Your task to perform on an android device: add a contact in the contacts app Image 0: 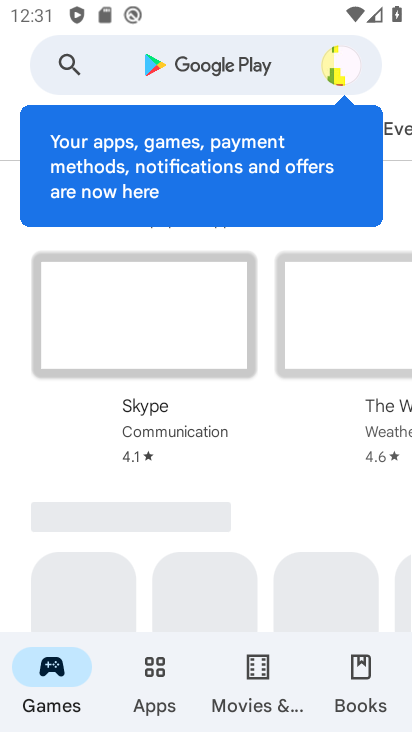
Step 0: press home button
Your task to perform on an android device: add a contact in the contacts app Image 1: 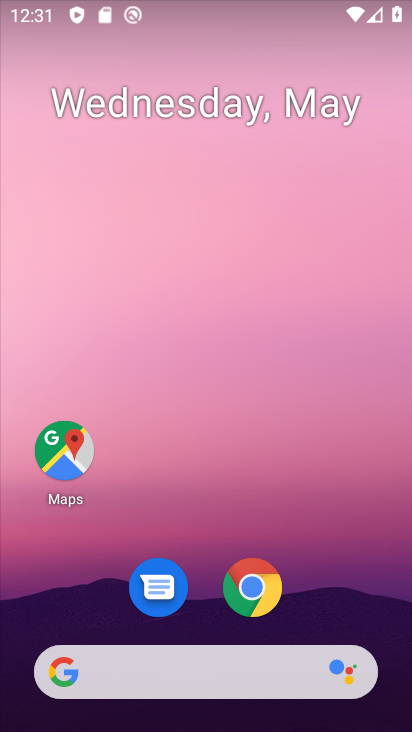
Step 1: drag from (224, 713) to (211, 12)
Your task to perform on an android device: add a contact in the contacts app Image 2: 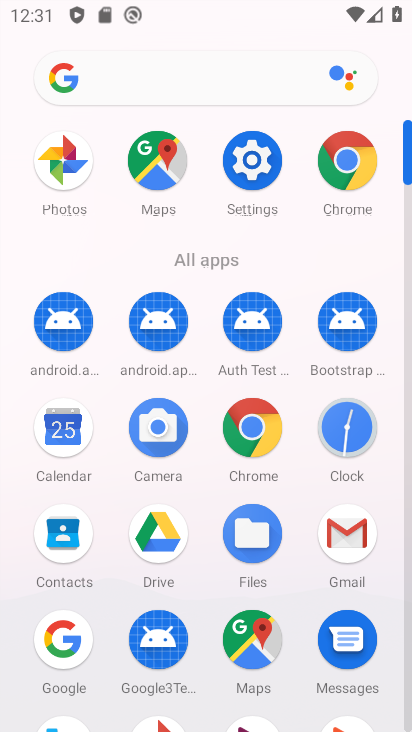
Step 2: click (65, 542)
Your task to perform on an android device: add a contact in the contacts app Image 3: 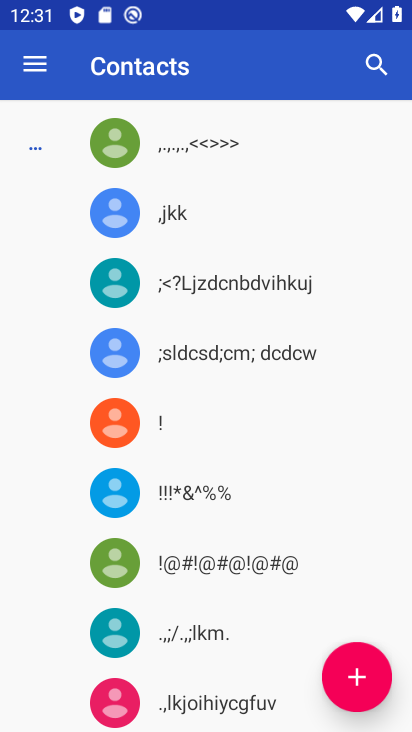
Step 3: click (357, 678)
Your task to perform on an android device: add a contact in the contacts app Image 4: 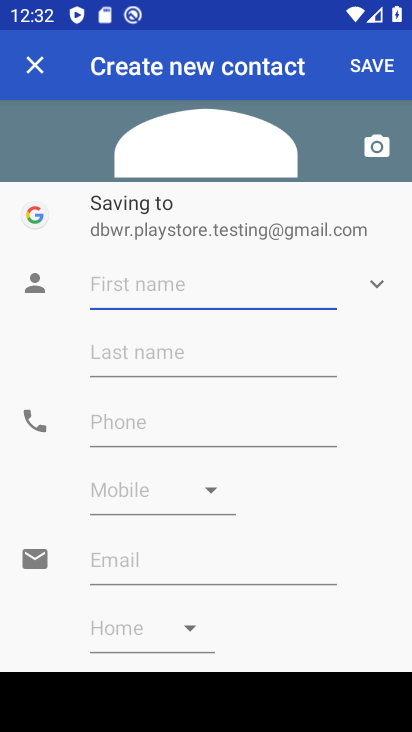
Step 4: type "sulaiman"
Your task to perform on an android device: add a contact in the contacts app Image 5: 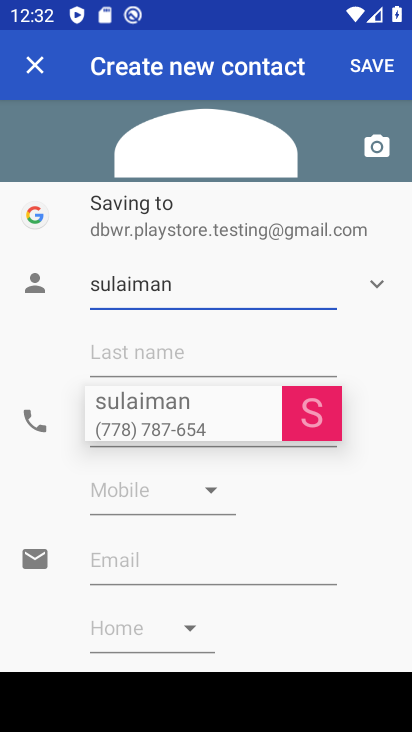
Step 5: click (128, 421)
Your task to perform on an android device: add a contact in the contacts app Image 6: 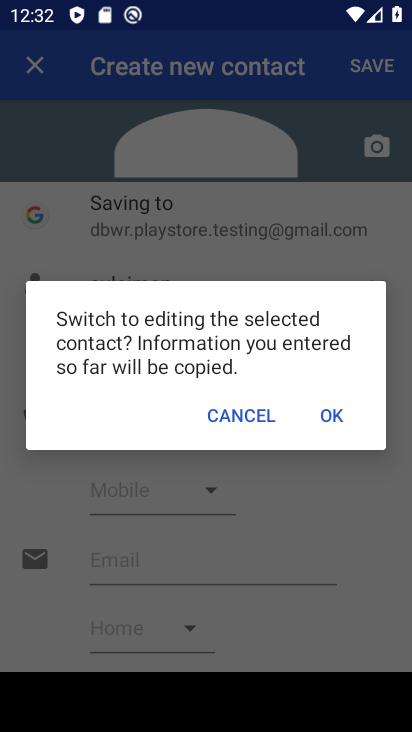
Step 6: click (233, 418)
Your task to perform on an android device: add a contact in the contacts app Image 7: 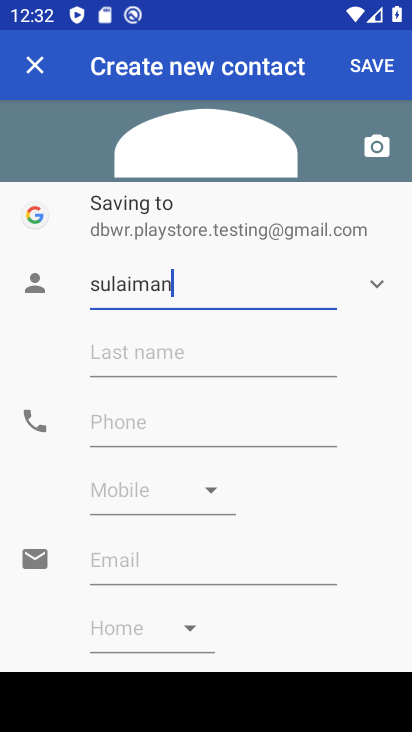
Step 7: type " c"
Your task to perform on an android device: add a contact in the contacts app Image 8: 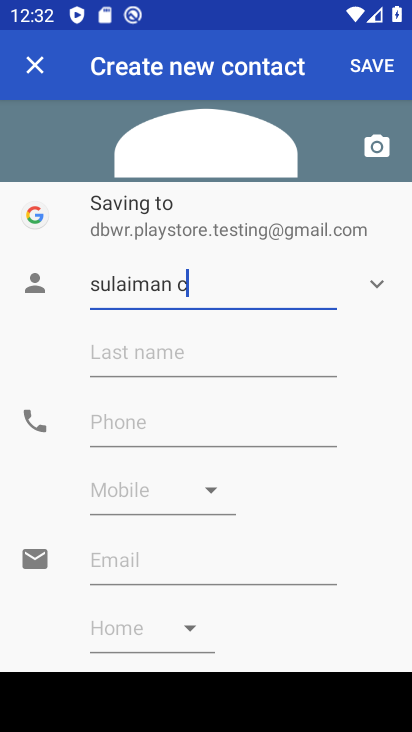
Step 8: click (184, 423)
Your task to perform on an android device: add a contact in the contacts app Image 9: 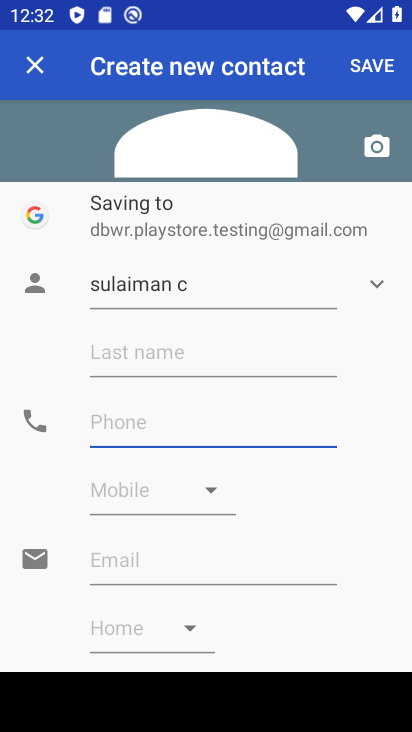
Step 9: type "87654"
Your task to perform on an android device: add a contact in the contacts app Image 10: 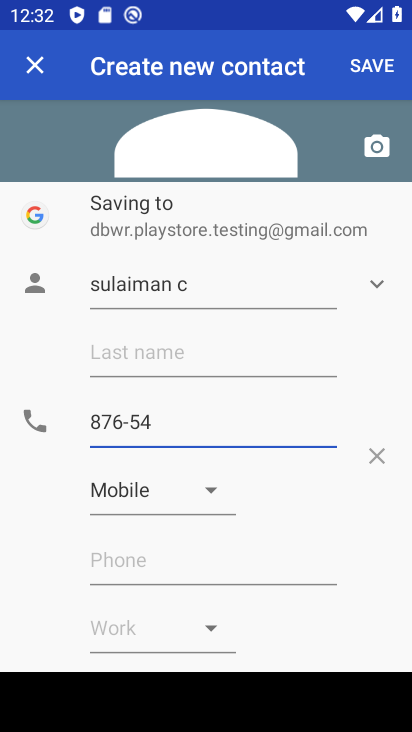
Step 10: click (363, 62)
Your task to perform on an android device: add a contact in the contacts app Image 11: 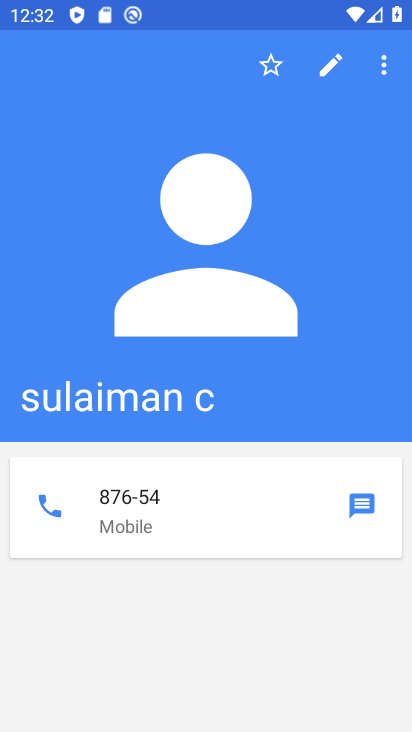
Step 11: task complete